Your task to perform on an android device: set default search engine in the chrome app Image 0: 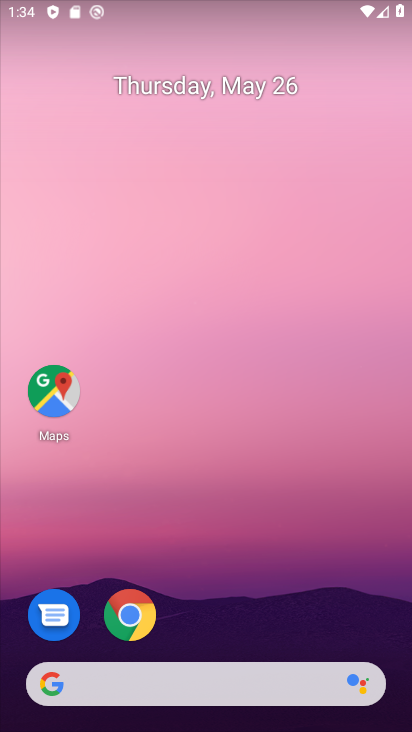
Step 0: drag from (207, 184) to (207, 108)
Your task to perform on an android device: set default search engine in the chrome app Image 1: 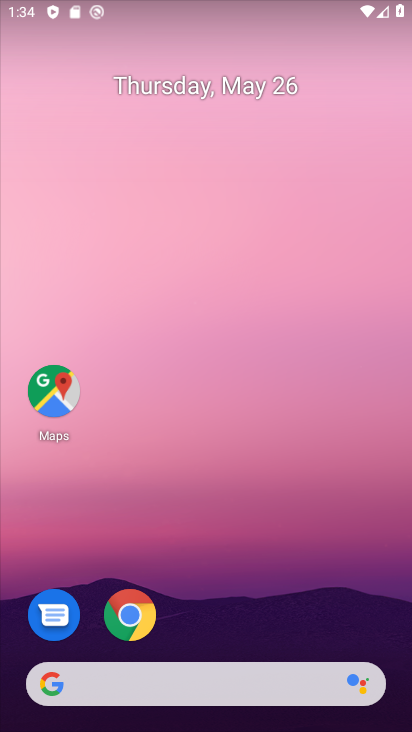
Step 1: click (132, 609)
Your task to perform on an android device: set default search engine in the chrome app Image 2: 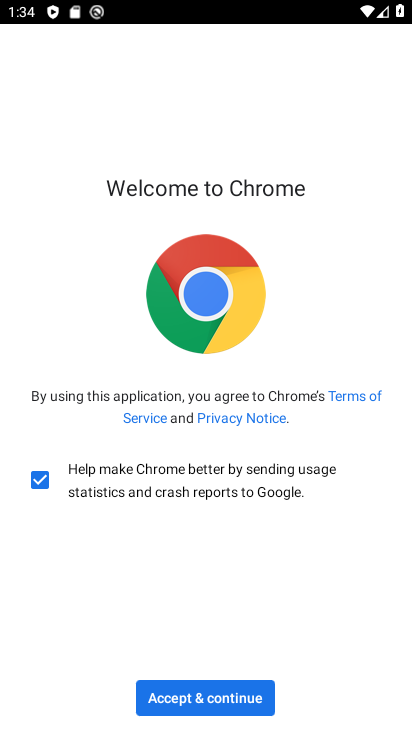
Step 2: click (199, 693)
Your task to perform on an android device: set default search engine in the chrome app Image 3: 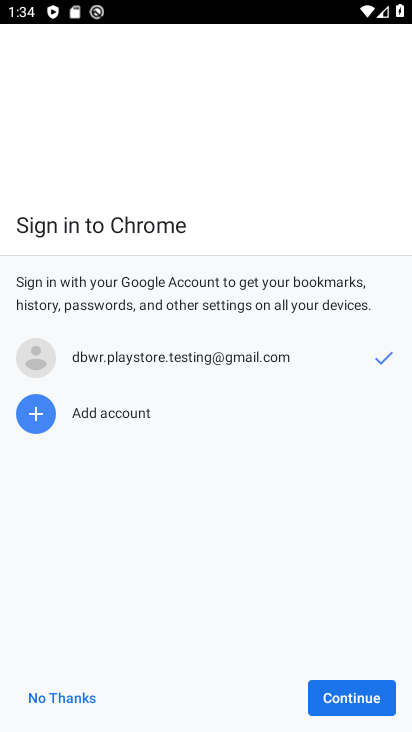
Step 3: click (351, 696)
Your task to perform on an android device: set default search engine in the chrome app Image 4: 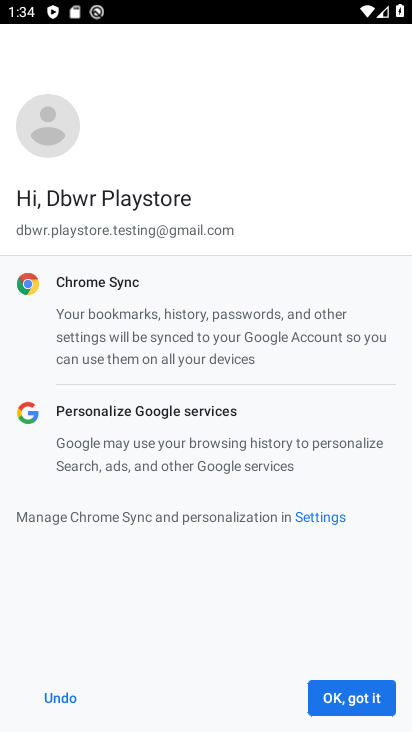
Step 4: click (351, 696)
Your task to perform on an android device: set default search engine in the chrome app Image 5: 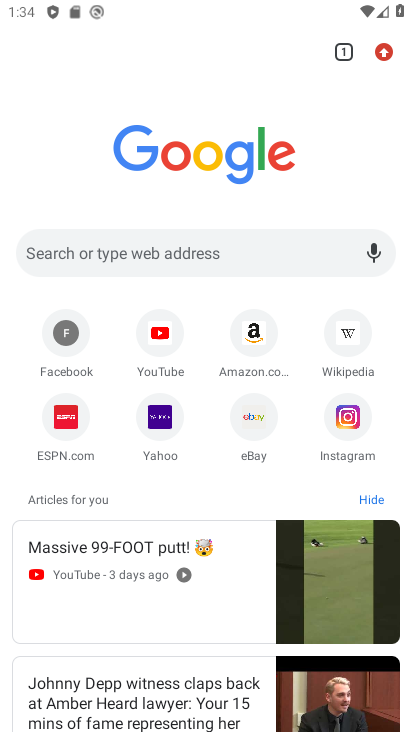
Step 5: click (381, 45)
Your task to perform on an android device: set default search engine in the chrome app Image 6: 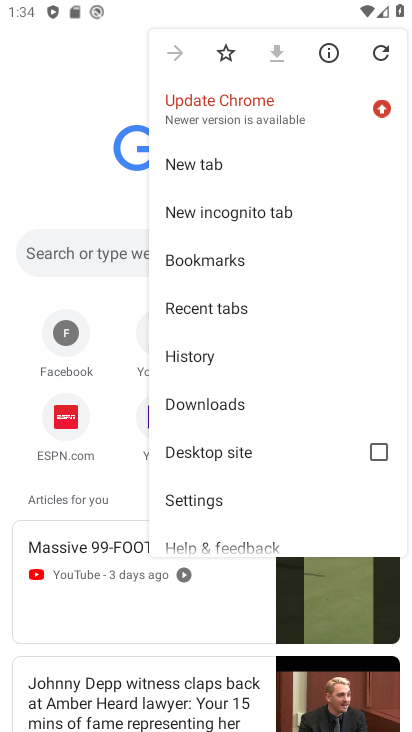
Step 6: click (227, 493)
Your task to perform on an android device: set default search engine in the chrome app Image 7: 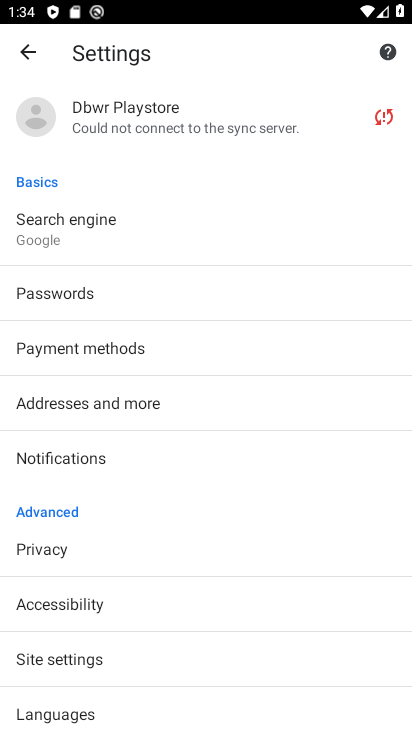
Step 7: click (94, 236)
Your task to perform on an android device: set default search engine in the chrome app Image 8: 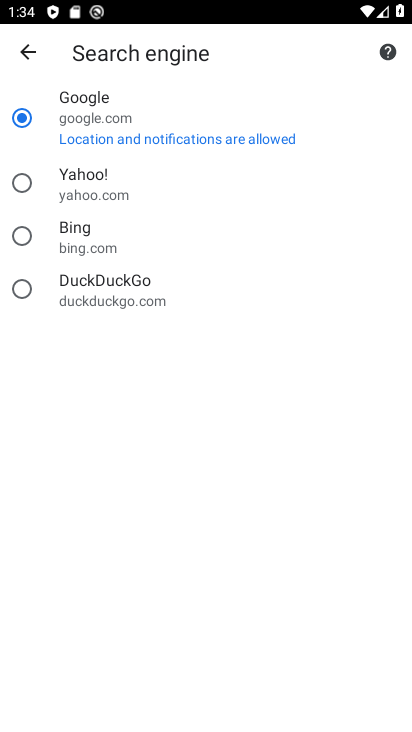
Step 8: click (17, 228)
Your task to perform on an android device: set default search engine in the chrome app Image 9: 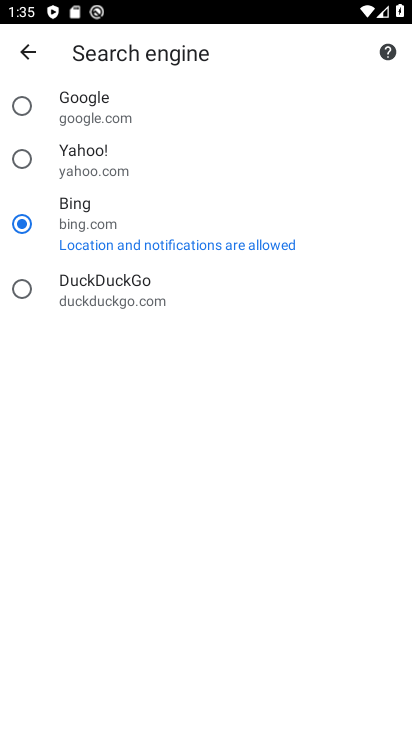
Step 9: task complete